Your task to perform on an android device: add a contact in the contacts app Image 0: 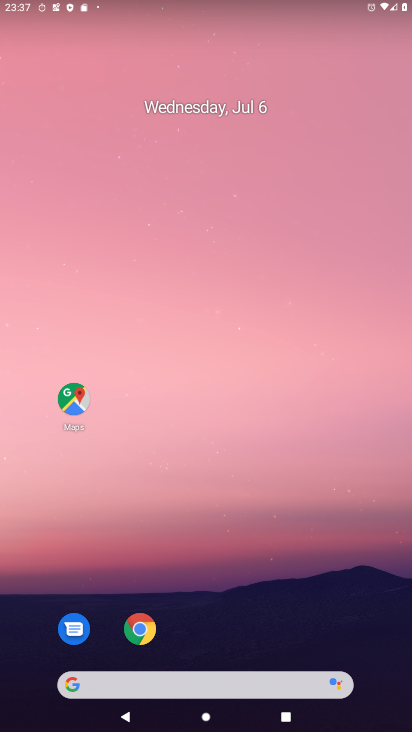
Step 0: drag from (205, 629) to (230, 65)
Your task to perform on an android device: add a contact in the contacts app Image 1: 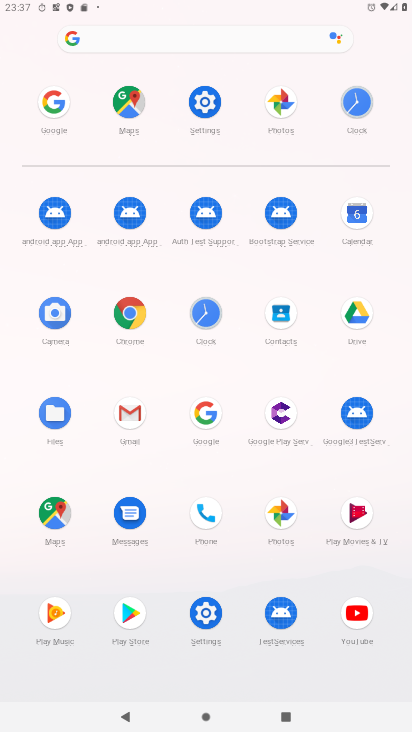
Step 1: click (274, 312)
Your task to perform on an android device: add a contact in the contacts app Image 2: 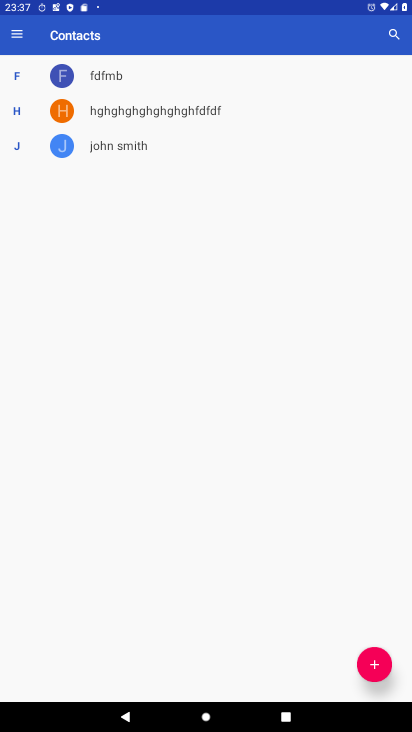
Step 2: click (377, 663)
Your task to perform on an android device: add a contact in the contacts app Image 3: 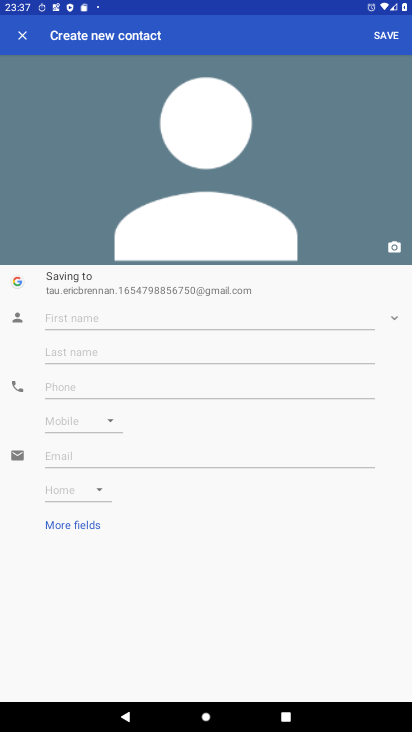
Step 3: click (88, 341)
Your task to perform on an android device: add a contact in the contacts app Image 4: 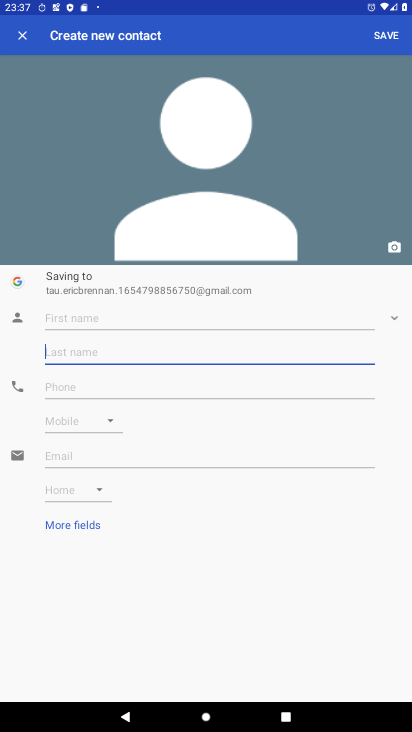
Step 4: click (85, 311)
Your task to perform on an android device: add a contact in the contacts app Image 5: 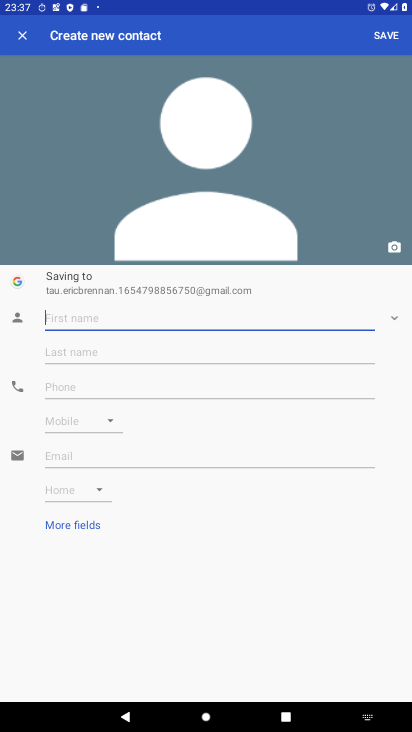
Step 5: type "kjdfjhd"
Your task to perform on an android device: add a contact in the contacts app Image 6: 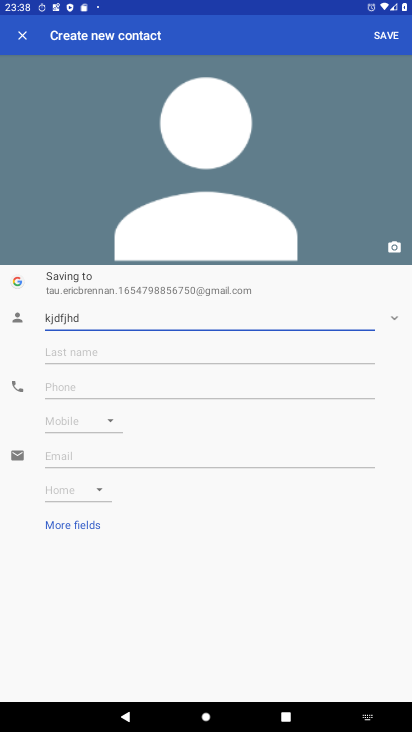
Step 6: click (389, 33)
Your task to perform on an android device: add a contact in the contacts app Image 7: 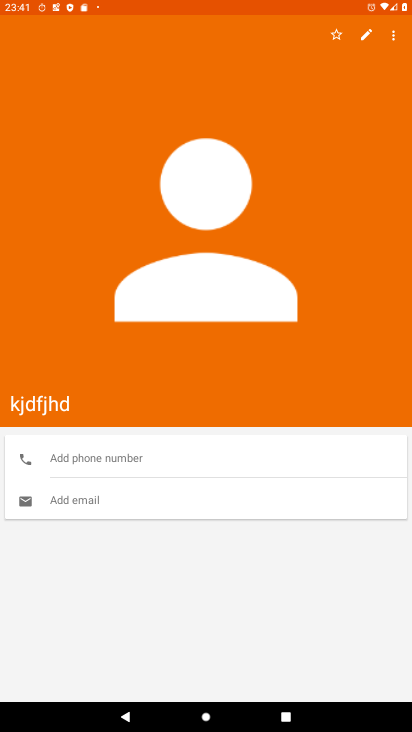
Step 7: task complete